Your task to perform on an android device: toggle notifications settings in the gmail app Image 0: 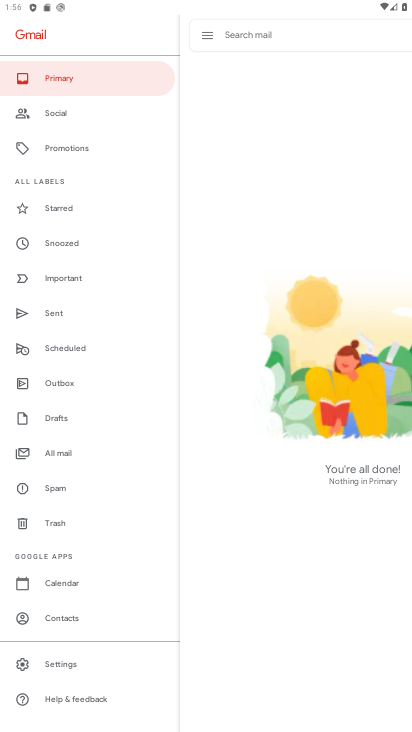
Step 0: drag from (105, 712) to (139, 378)
Your task to perform on an android device: toggle notifications settings in the gmail app Image 1: 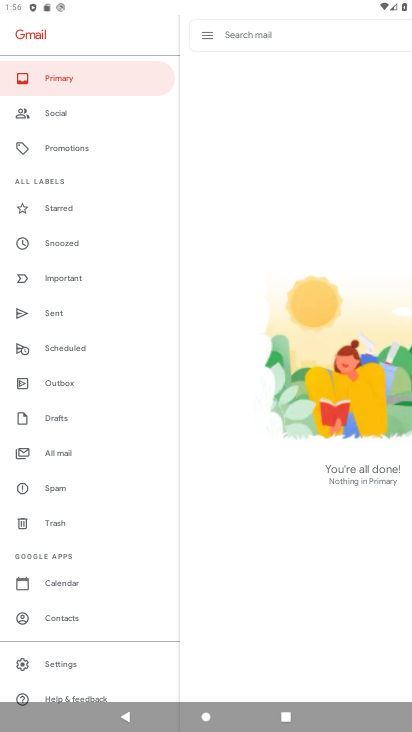
Step 1: click (100, 668)
Your task to perform on an android device: toggle notifications settings in the gmail app Image 2: 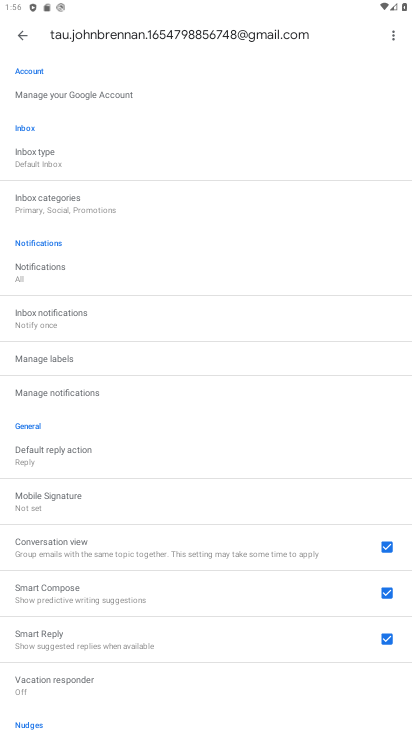
Step 2: click (135, 394)
Your task to perform on an android device: toggle notifications settings in the gmail app Image 3: 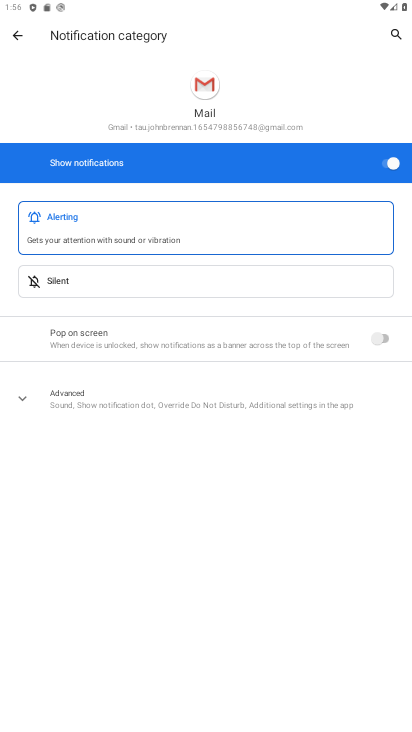
Step 3: click (380, 164)
Your task to perform on an android device: toggle notifications settings in the gmail app Image 4: 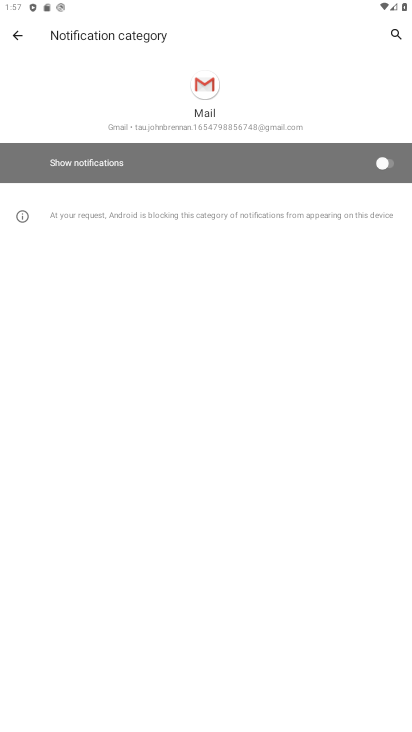
Step 4: task complete